Your task to perform on an android device: Open CNN.com Image 0: 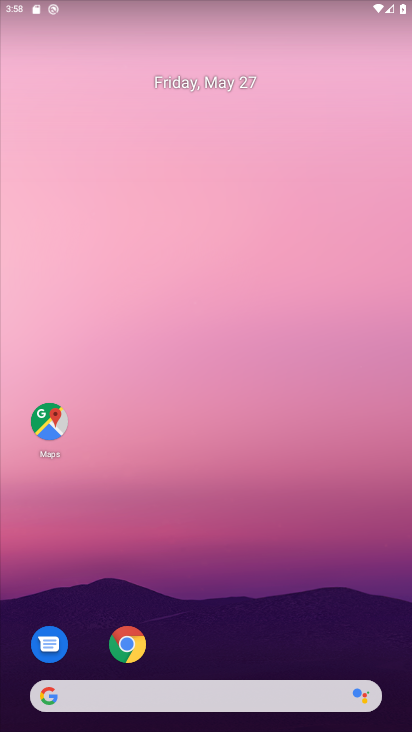
Step 0: drag from (241, 378) to (187, 2)
Your task to perform on an android device: Open CNN.com Image 1: 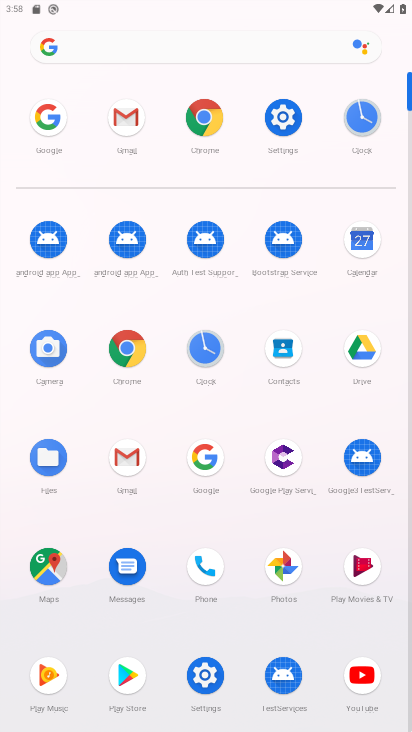
Step 1: click (202, 120)
Your task to perform on an android device: Open CNN.com Image 2: 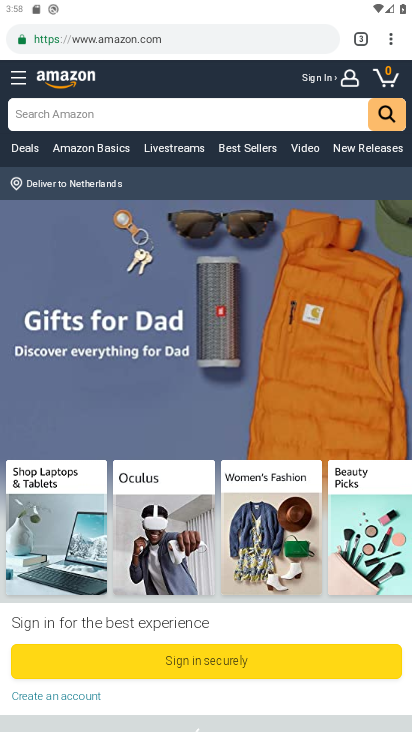
Step 2: click (355, 41)
Your task to perform on an android device: Open CNN.com Image 3: 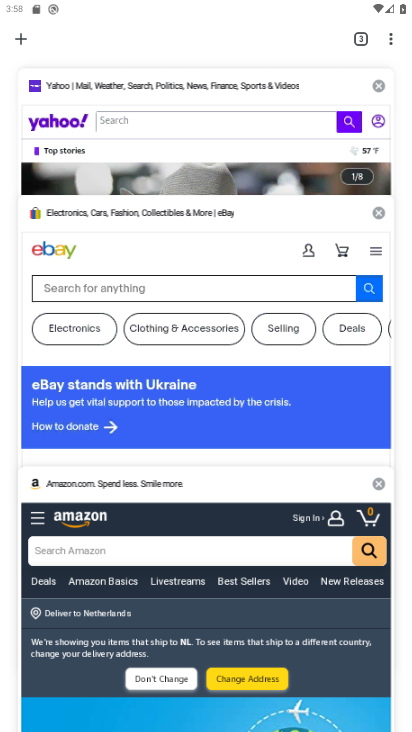
Step 3: click (16, 40)
Your task to perform on an android device: Open CNN.com Image 4: 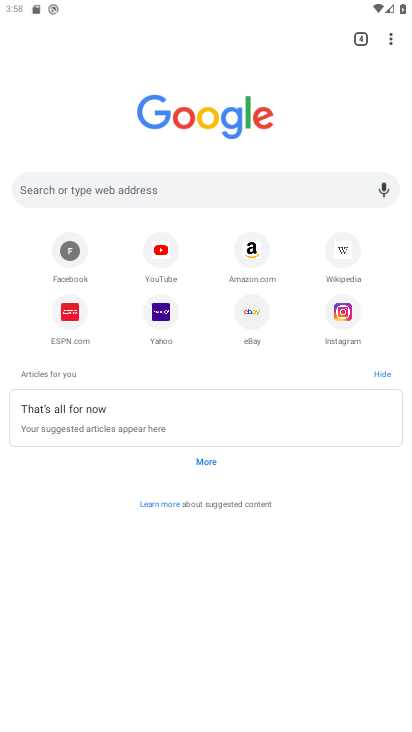
Step 4: click (167, 184)
Your task to perform on an android device: Open CNN.com Image 5: 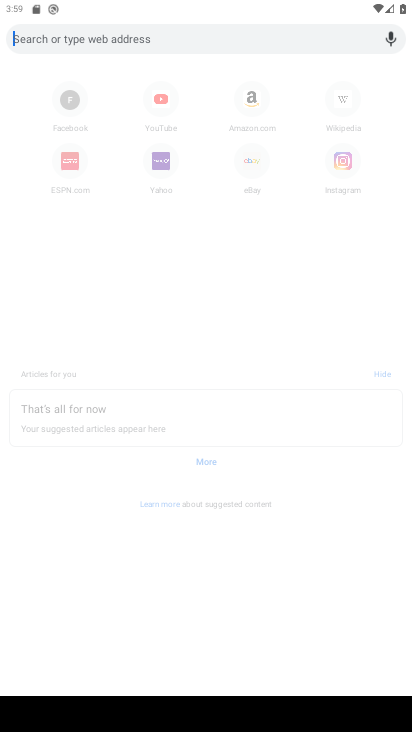
Step 5: type "CNN.com"
Your task to perform on an android device: Open CNN.com Image 6: 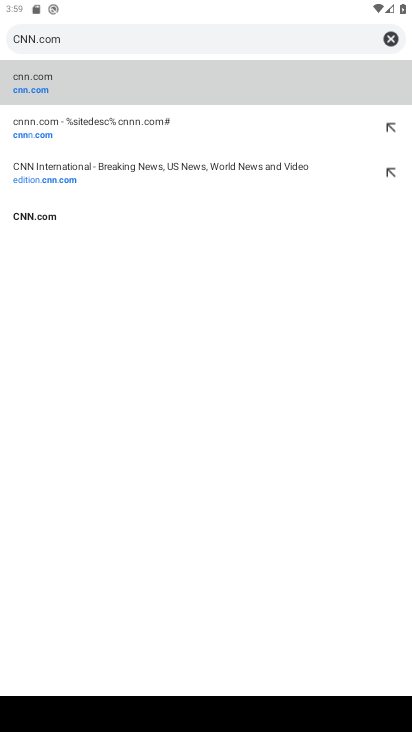
Step 6: click (124, 85)
Your task to perform on an android device: Open CNN.com Image 7: 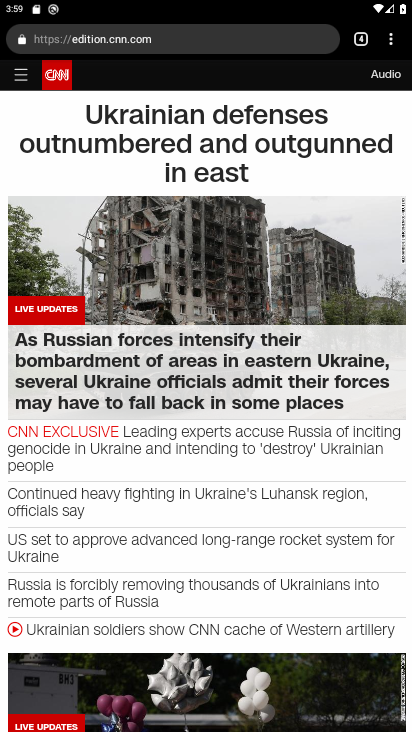
Step 7: task complete